Your task to perform on an android device: empty trash in google photos Image 0: 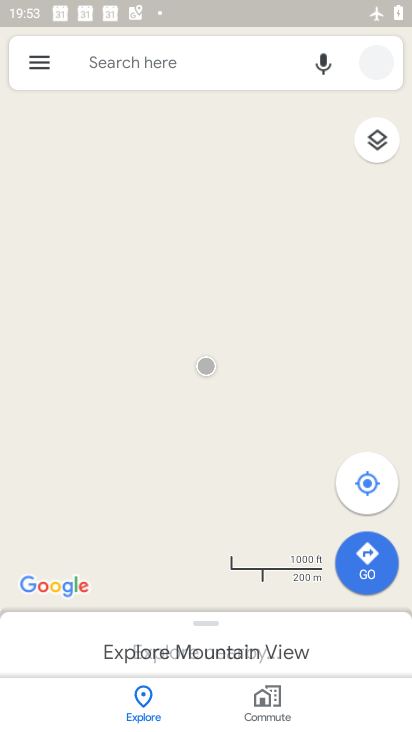
Step 0: press home button
Your task to perform on an android device: empty trash in google photos Image 1: 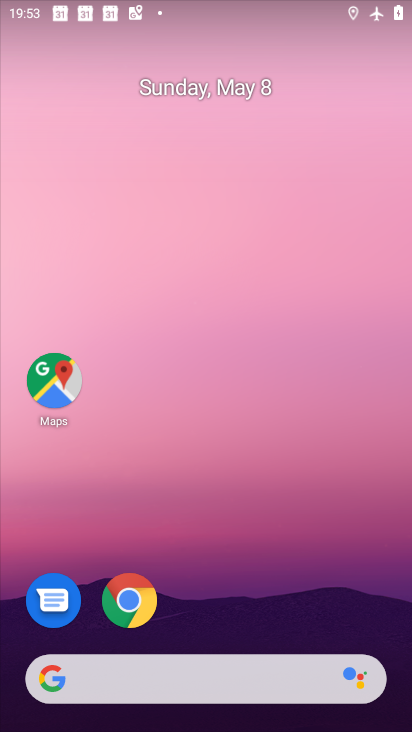
Step 1: drag from (221, 705) to (257, 131)
Your task to perform on an android device: empty trash in google photos Image 2: 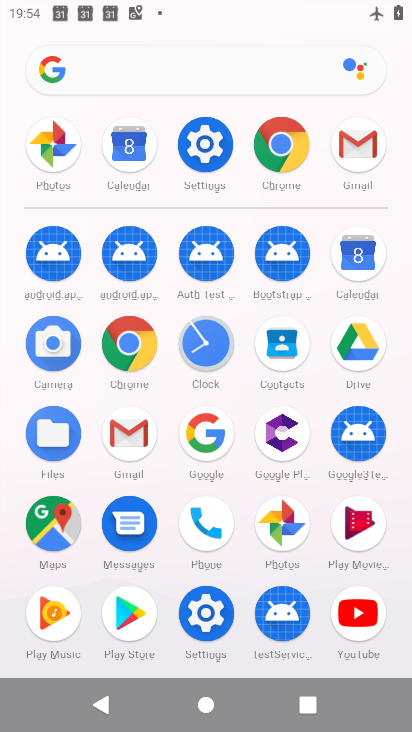
Step 2: click (284, 521)
Your task to perform on an android device: empty trash in google photos Image 3: 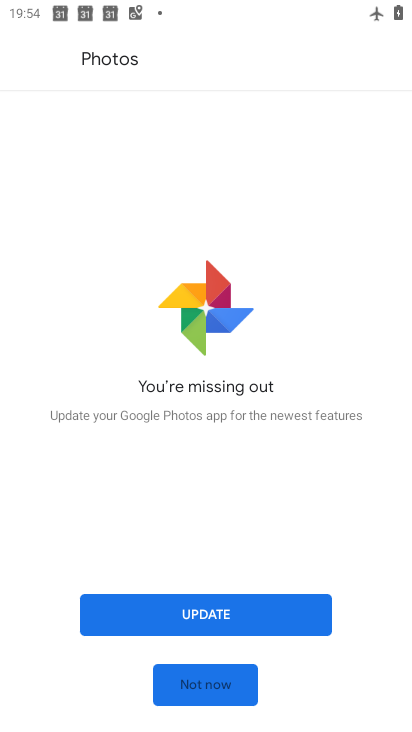
Step 3: click (199, 681)
Your task to perform on an android device: empty trash in google photos Image 4: 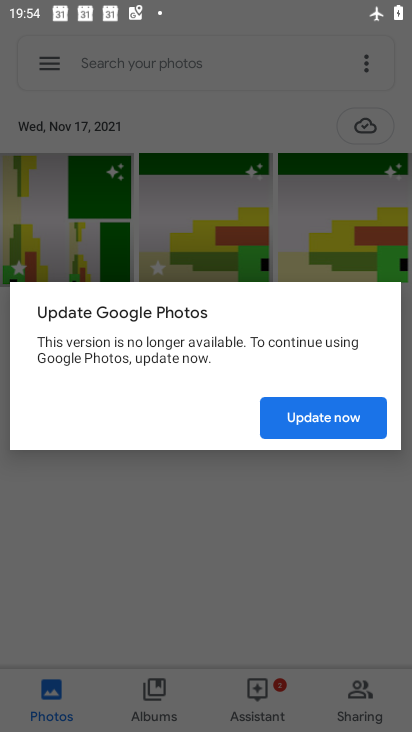
Step 4: click (320, 416)
Your task to perform on an android device: empty trash in google photos Image 5: 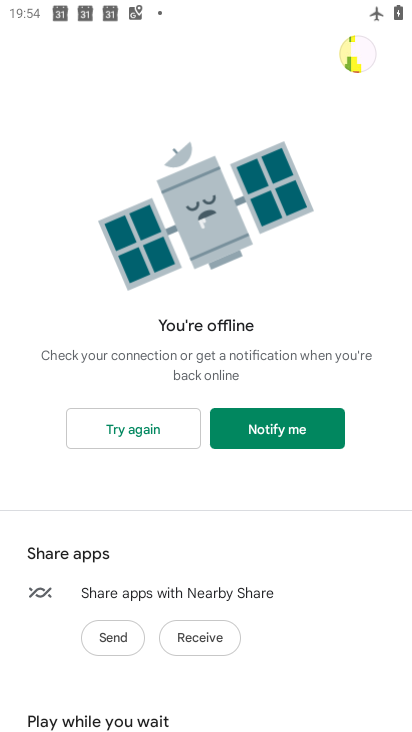
Step 5: click (290, 421)
Your task to perform on an android device: empty trash in google photos Image 6: 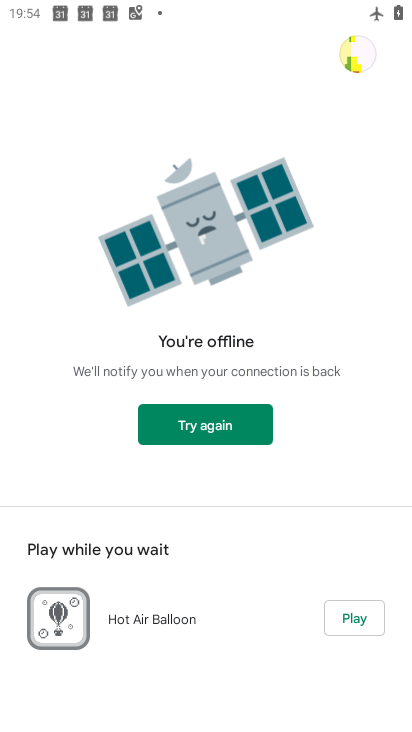
Step 6: press back button
Your task to perform on an android device: empty trash in google photos Image 7: 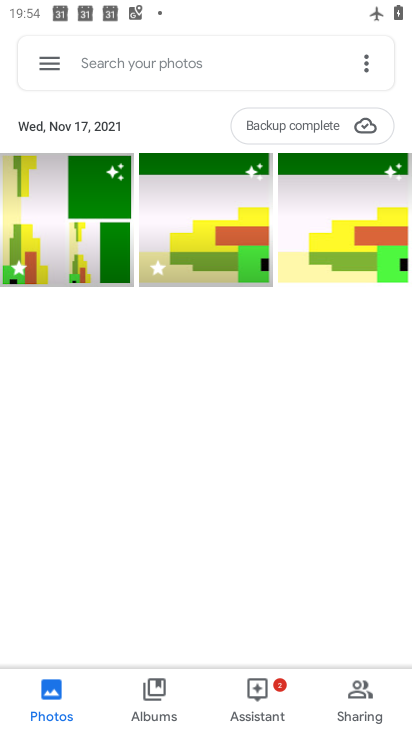
Step 7: click (108, 49)
Your task to perform on an android device: empty trash in google photos Image 8: 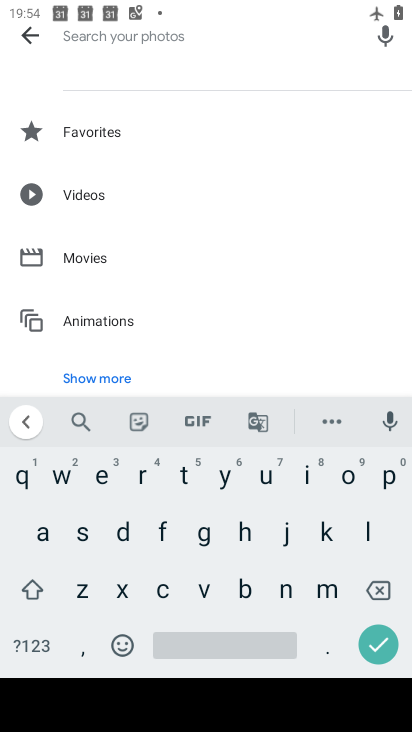
Step 8: click (183, 482)
Your task to perform on an android device: empty trash in google photos Image 9: 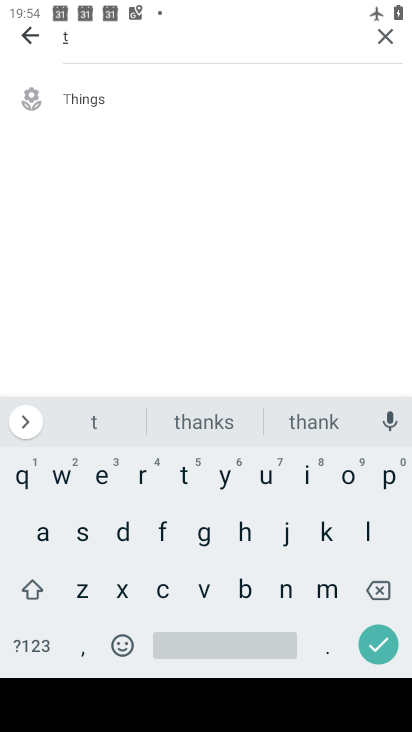
Step 9: click (140, 482)
Your task to perform on an android device: empty trash in google photos Image 10: 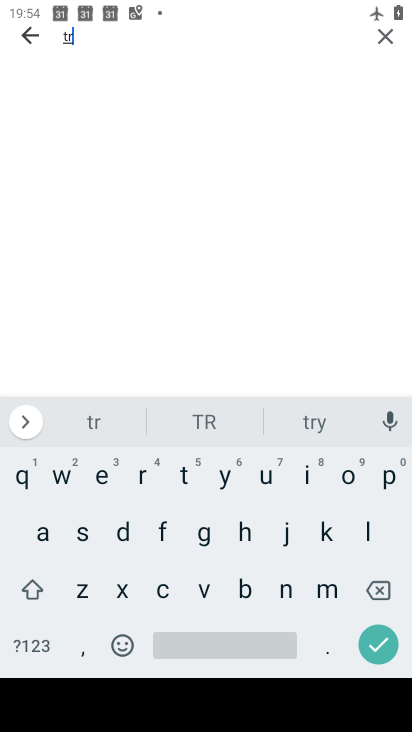
Step 10: press home button
Your task to perform on an android device: empty trash in google photos Image 11: 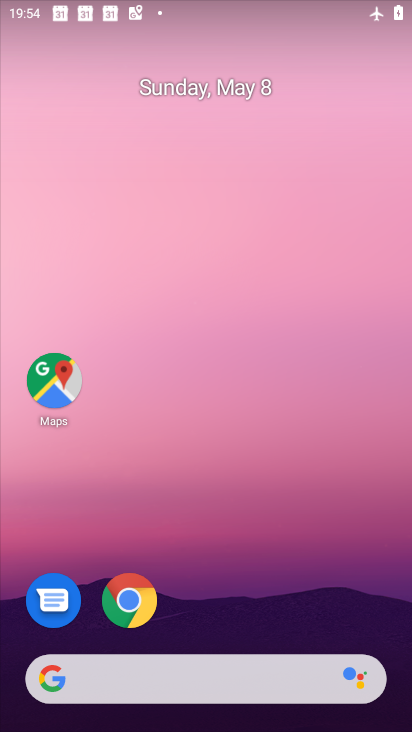
Step 11: drag from (272, 714) to (328, 267)
Your task to perform on an android device: empty trash in google photos Image 12: 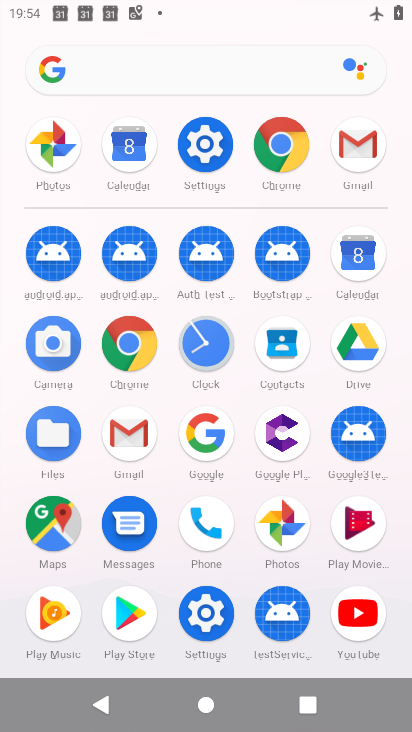
Step 12: click (196, 153)
Your task to perform on an android device: empty trash in google photos Image 13: 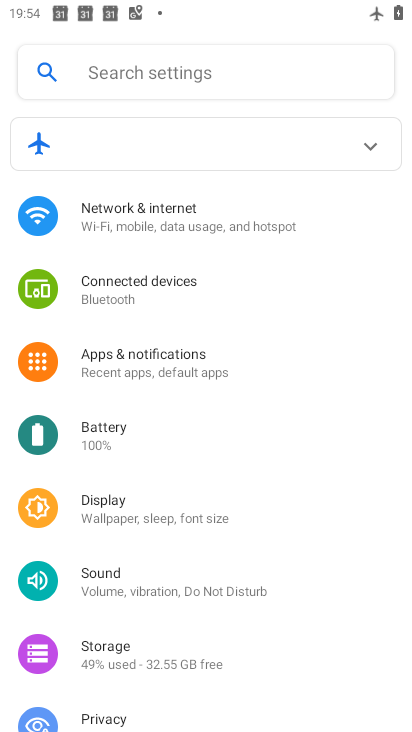
Step 13: click (362, 145)
Your task to perform on an android device: empty trash in google photos Image 14: 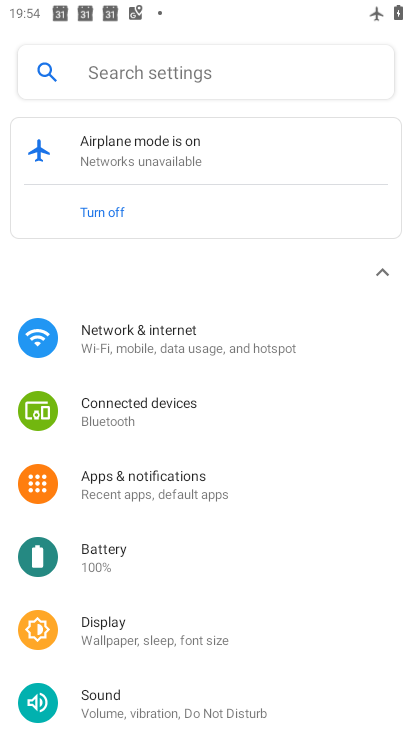
Step 14: click (131, 221)
Your task to perform on an android device: empty trash in google photos Image 15: 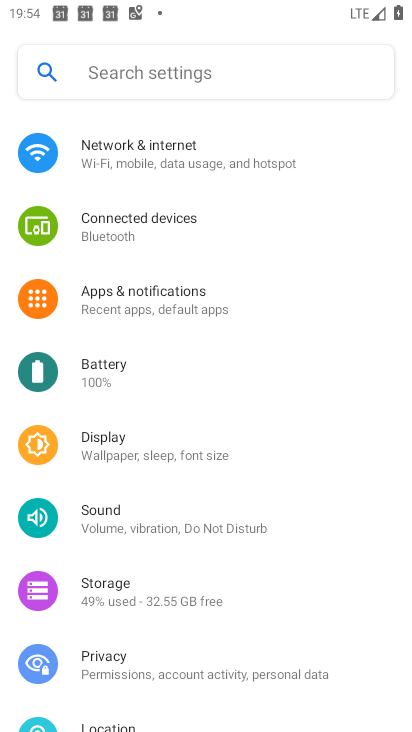
Step 15: press home button
Your task to perform on an android device: empty trash in google photos Image 16: 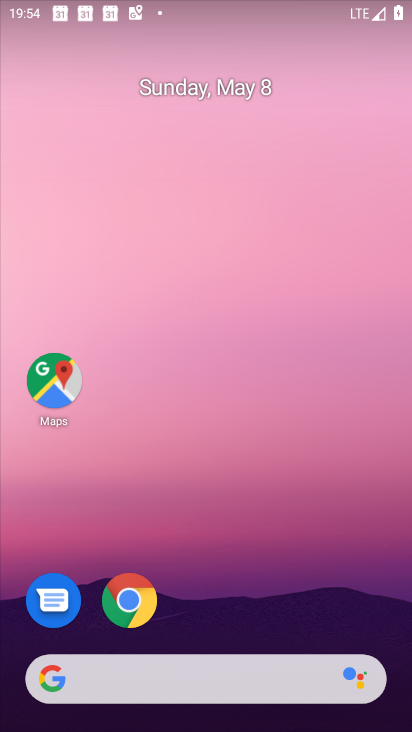
Step 16: drag from (243, 656) to (285, 163)
Your task to perform on an android device: empty trash in google photos Image 17: 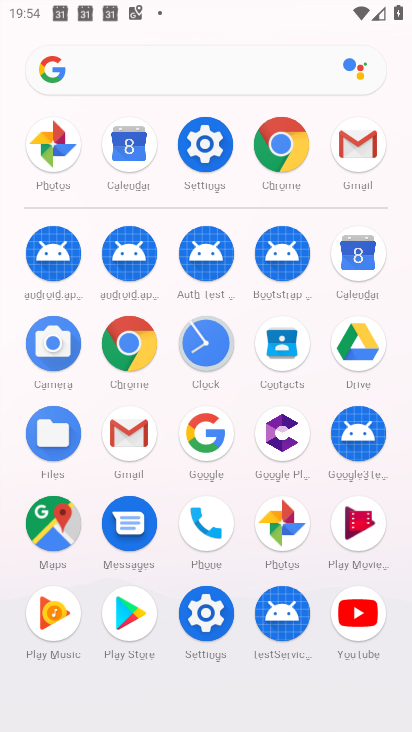
Step 17: click (281, 522)
Your task to perform on an android device: empty trash in google photos Image 18: 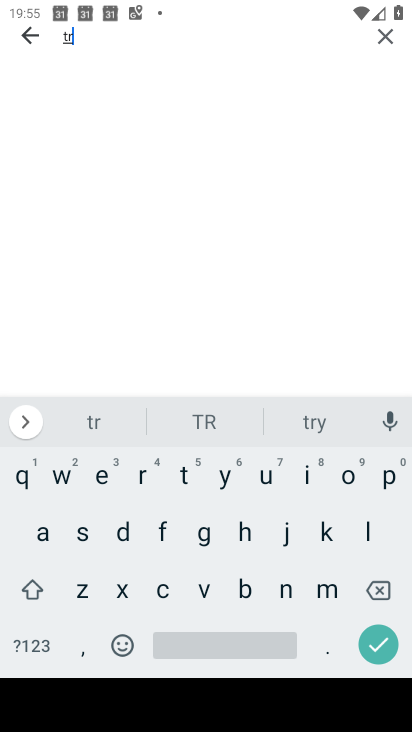
Step 18: click (389, 40)
Your task to perform on an android device: empty trash in google photos Image 19: 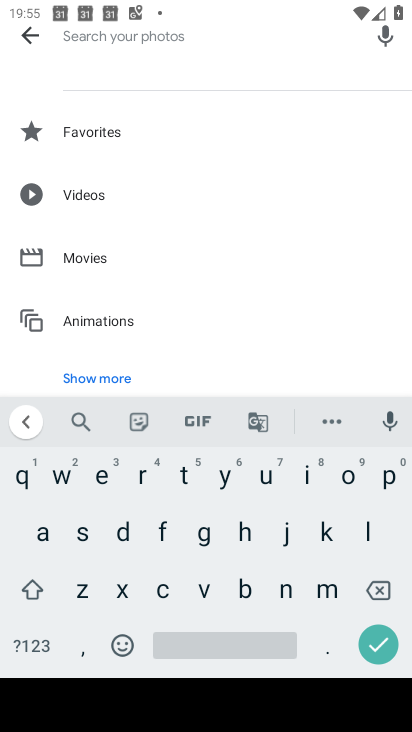
Step 19: click (177, 475)
Your task to perform on an android device: empty trash in google photos Image 20: 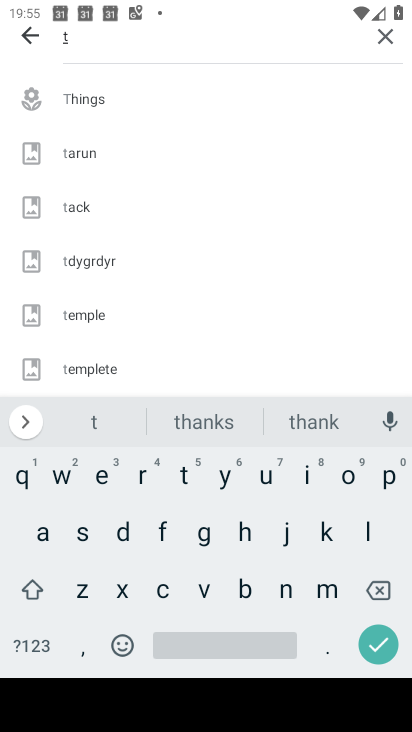
Step 20: click (131, 480)
Your task to perform on an android device: empty trash in google photos Image 21: 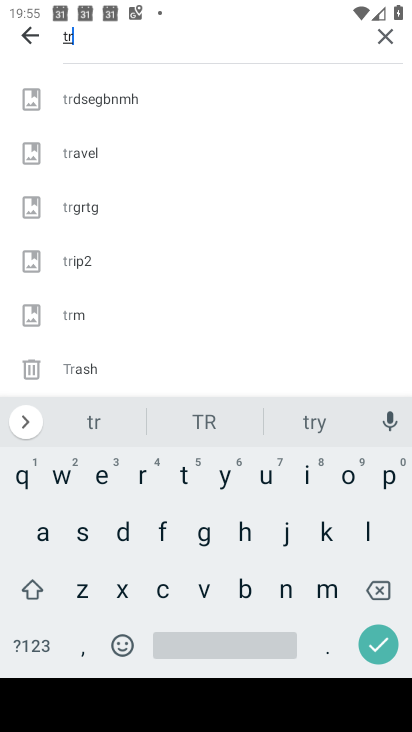
Step 21: click (92, 363)
Your task to perform on an android device: empty trash in google photos Image 22: 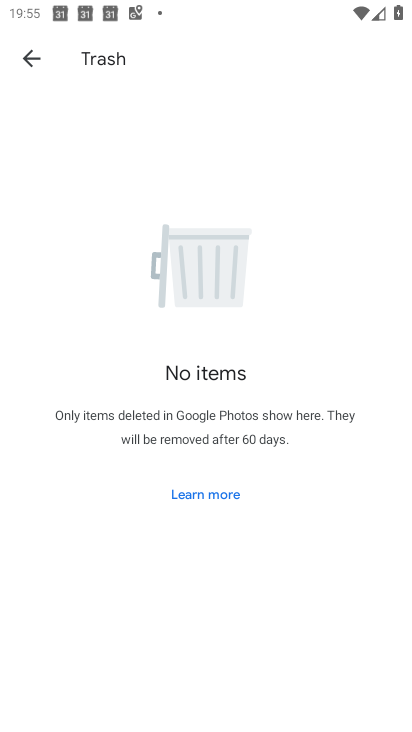
Step 22: task complete